Your task to perform on an android device: turn smart compose on in the gmail app Image 0: 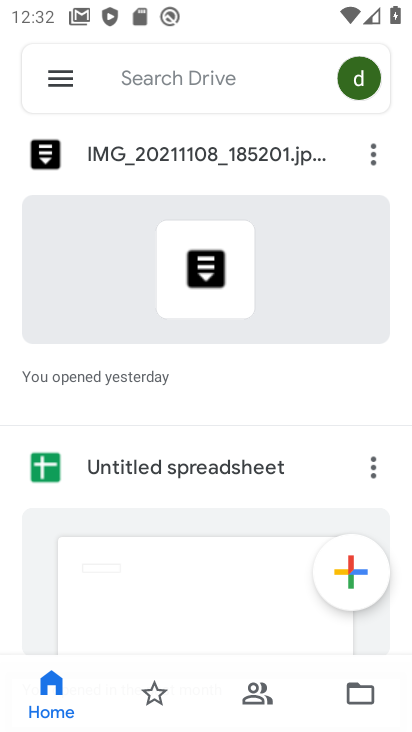
Step 0: press home button
Your task to perform on an android device: turn smart compose on in the gmail app Image 1: 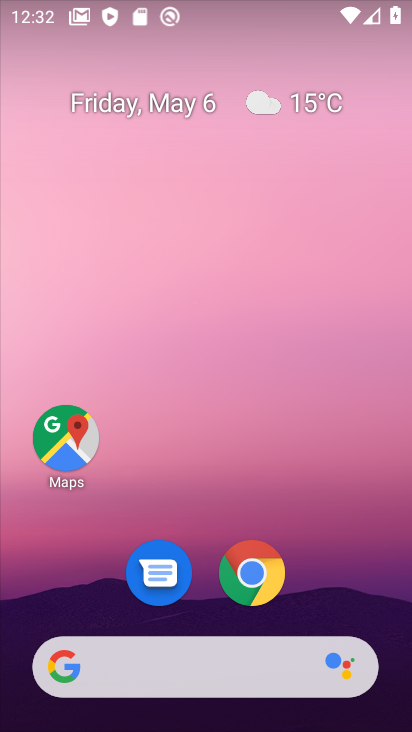
Step 1: drag from (229, 724) to (204, 205)
Your task to perform on an android device: turn smart compose on in the gmail app Image 2: 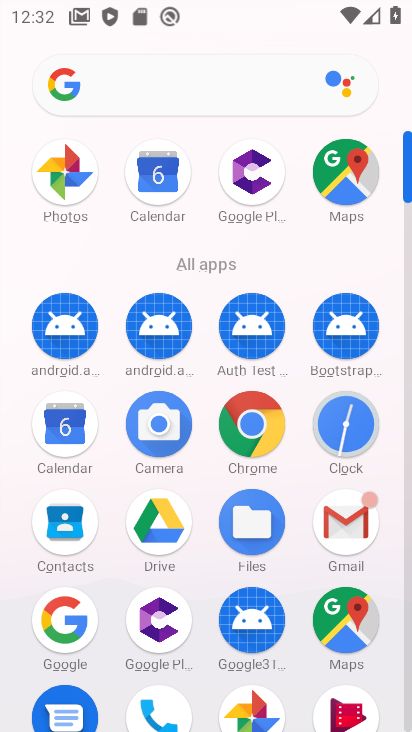
Step 2: click (331, 516)
Your task to perform on an android device: turn smart compose on in the gmail app Image 3: 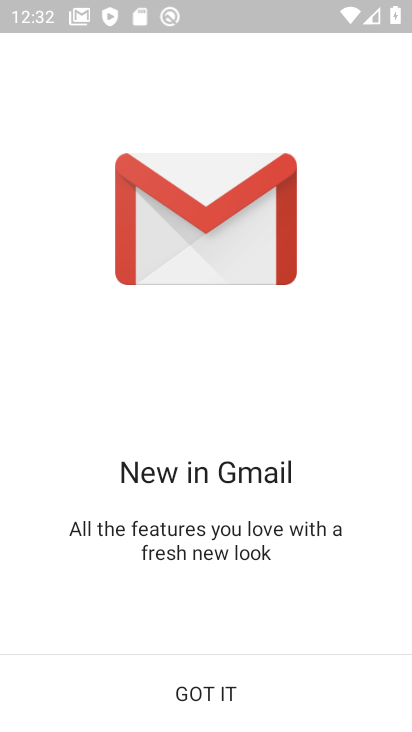
Step 3: click (205, 681)
Your task to perform on an android device: turn smart compose on in the gmail app Image 4: 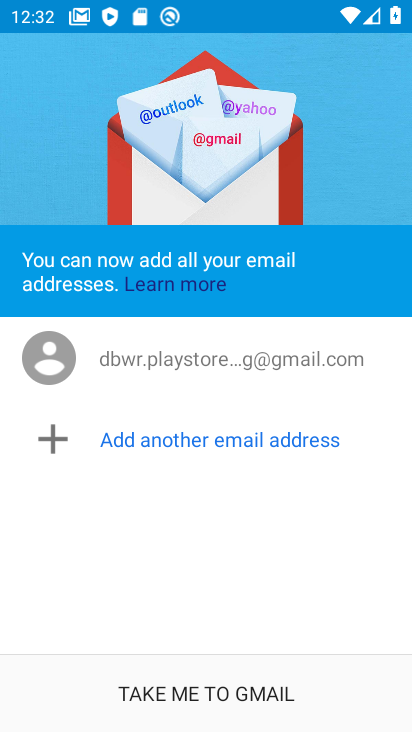
Step 4: click (218, 687)
Your task to perform on an android device: turn smart compose on in the gmail app Image 5: 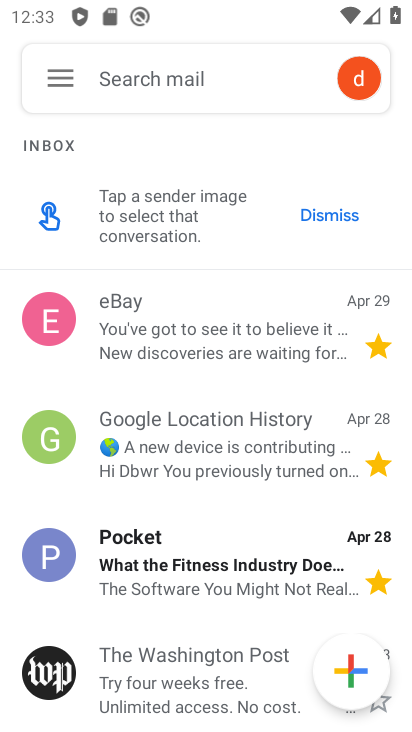
Step 5: click (54, 85)
Your task to perform on an android device: turn smart compose on in the gmail app Image 6: 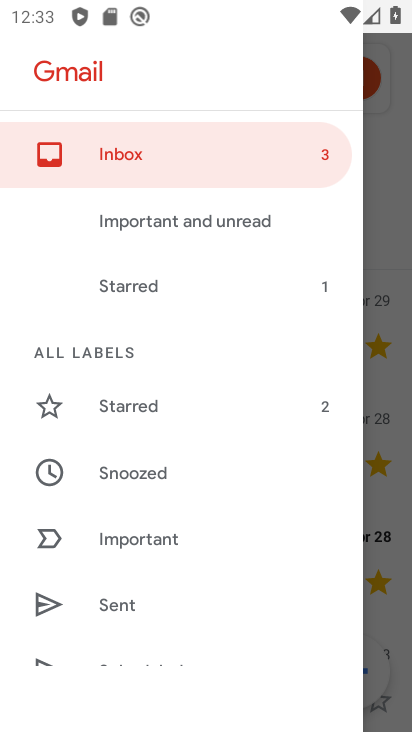
Step 6: drag from (125, 605) to (110, 294)
Your task to perform on an android device: turn smart compose on in the gmail app Image 7: 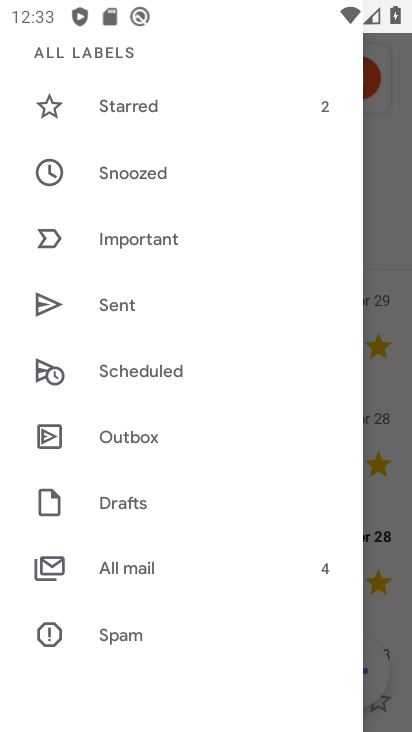
Step 7: drag from (115, 618) to (103, 296)
Your task to perform on an android device: turn smart compose on in the gmail app Image 8: 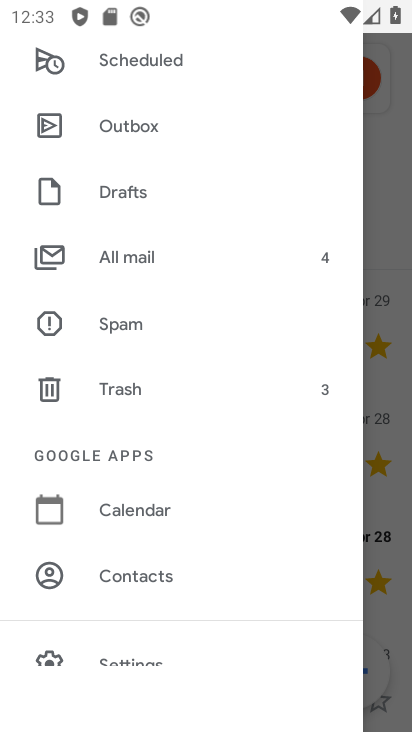
Step 8: drag from (133, 626) to (114, 305)
Your task to perform on an android device: turn smart compose on in the gmail app Image 9: 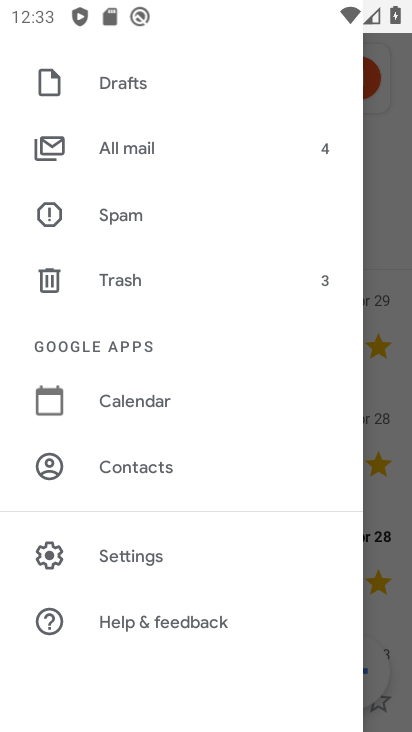
Step 9: click (140, 551)
Your task to perform on an android device: turn smart compose on in the gmail app Image 10: 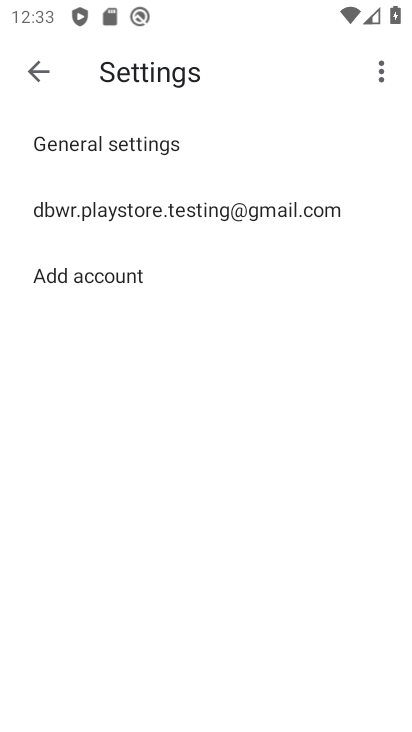
Step 10: click (191, 206)
Your task to perform on an android device: turn smart compose on in the gmail app Image 11: 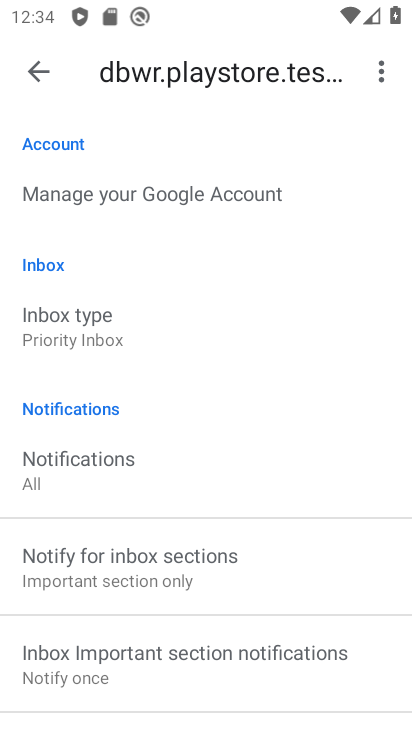
Step 11: task complete